Your task to perform on an android device: Empty the shopping cart on target.com. Search for "razer blade" on target.com, select the first entry, add it to the cart, then select checkout. Image 0: 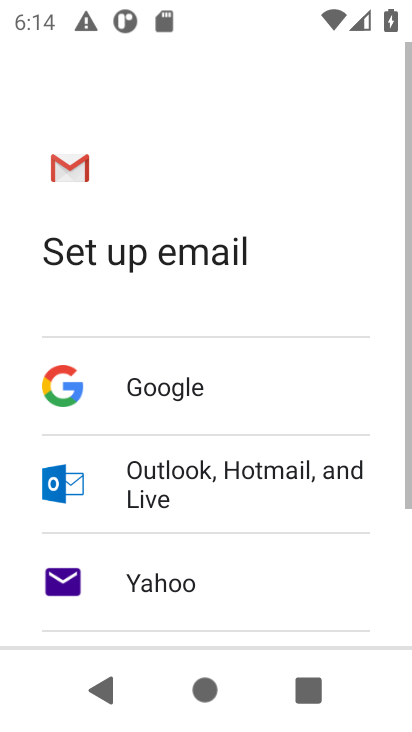
Step 0: press home button
Your task to perform on an android device: Empty the shopping cart on target.com. Search for "razer blade" on target.com, select the first entry, add it to the cart, then select checkout. Image 1: 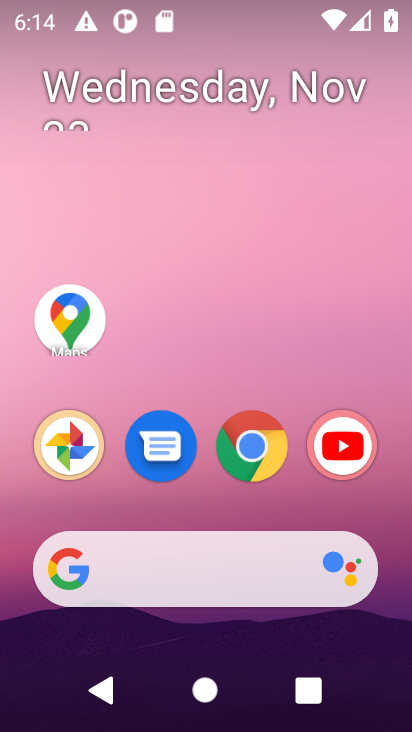
Step 1: click (197, 571)
Your task to perform on an android device: Empty the shopping cart on target.com. Search for "razer blade" on target.com, select the first entry, add it to the cart, then select checkout. Image 2: 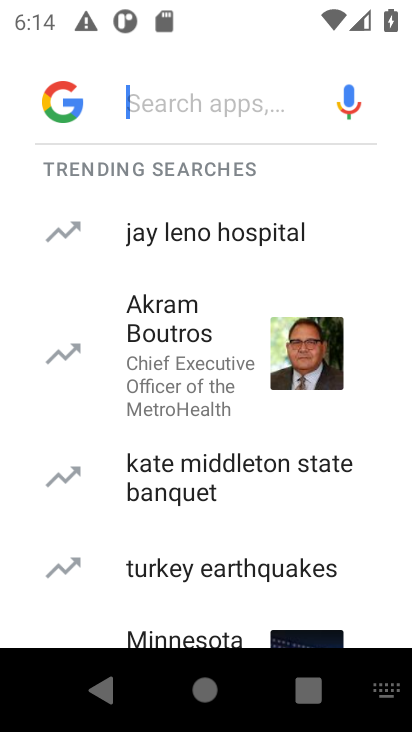
Step 2: type "target.com"
Your task to perform on an android device: Empty the shopping cart on target.com. Search for "razer blade" on target.com, select the first entry, add it to the cart, then select checkout. Image 3: 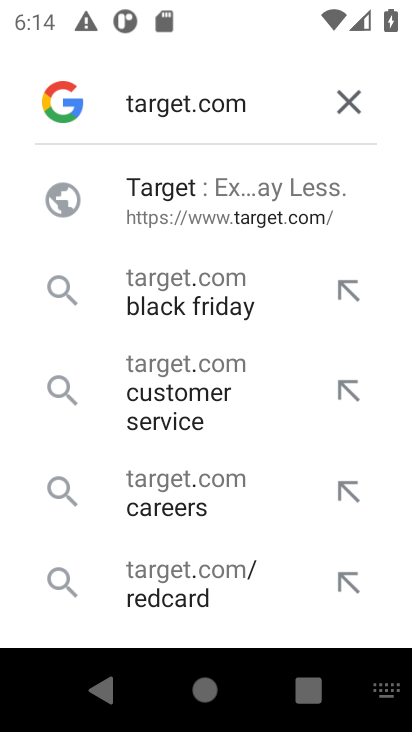
Step 3: click (283, 221)
Your task to perform on an android device: Empty the shopping cart on target.com. Search for "razer blade" on target.com, select the first entry, add it to the cart, then select checkout. Image 4: 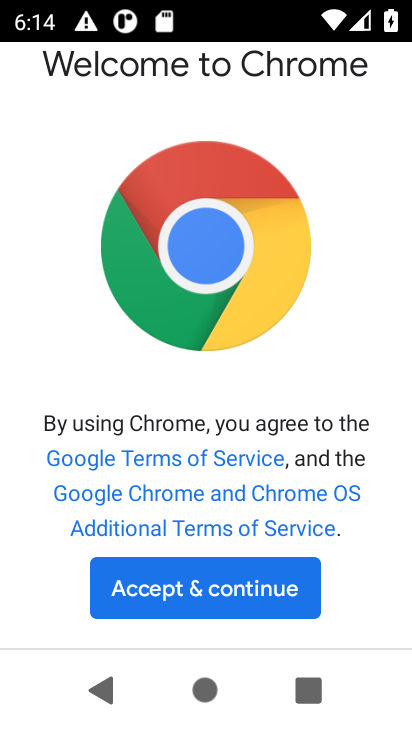
Step 4: click (274, 598)
Your task to perform on an android device: Empty the shopping cart on target.com. Search for "razer blade" on target.com, select the first entry, add it to the cart, then select checkout. Image 5: 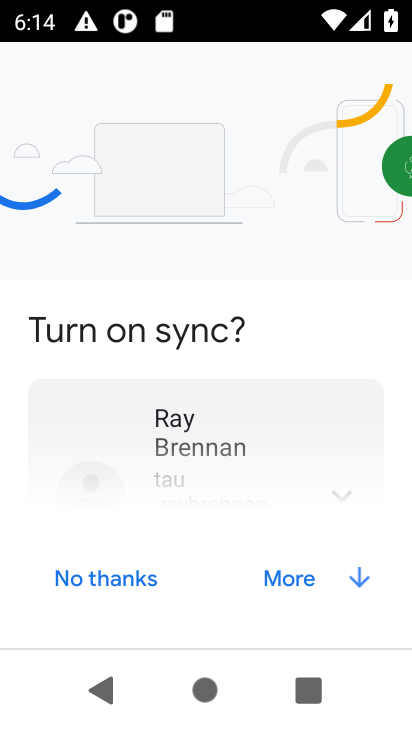
Step 5: click (175, 589)
Your task to perform on an android device: Empty the shopping cart on target.com. Search for "razer blade" on target.com, select the first entry, add it to the cart, then select checkout. Image 6: 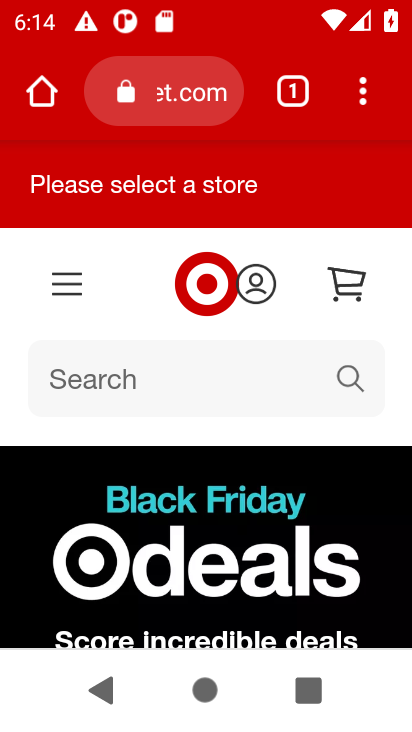
Step 6: click (242, 382)
Your task to perform on an android device: Empty the shopping cart on target.com. Search for "razer blade" on target.com, select the first entry, add it to the cart, then select checkout. Image 7: 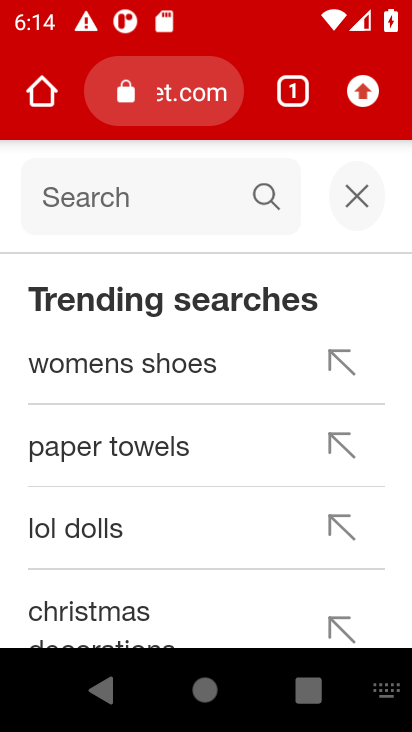
Step 7: type "razer blade"
Your task to perform on an android device: Empty the shopping cart on target.com. Search for "razer blade" on target.com, select the first entry, add it to the cart, then select checkout. Image 8: 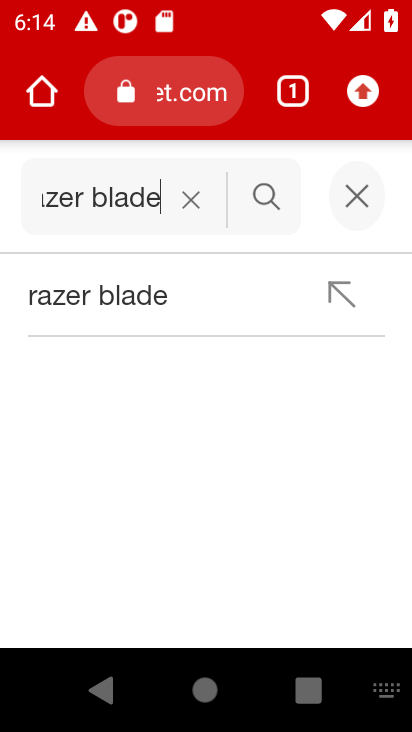
Step 8: click (107, 284)
Your task to perform on an android device: Empty the shopping cart on target.com. Search for "razer blade" on target.com, select the first entry, add it to the cart, then select checkout. Image 9: 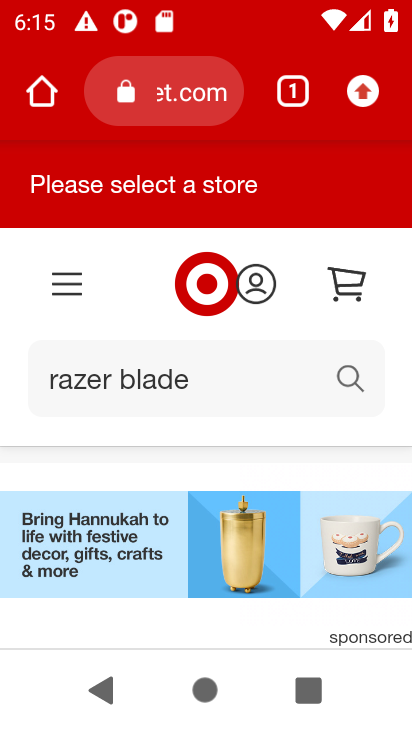
Step 9: drag from (314, 513) to (338, 148)
Your task to perform on an android device: Empty the shopping cart on target.com. Search for "razer blade" on target.com, select the first entry, add it to the cart, then select checkout. Image 10: 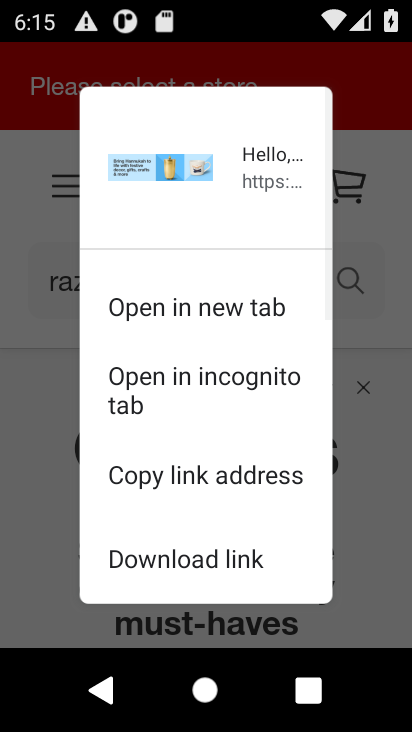
Step 10: click (395, 270)
Your task to perform on an android device: Empty the shopping cart on target.com. Search for "razer blade" on target.com, select the first entry, add it to the cart, then select checkout. Image 11: 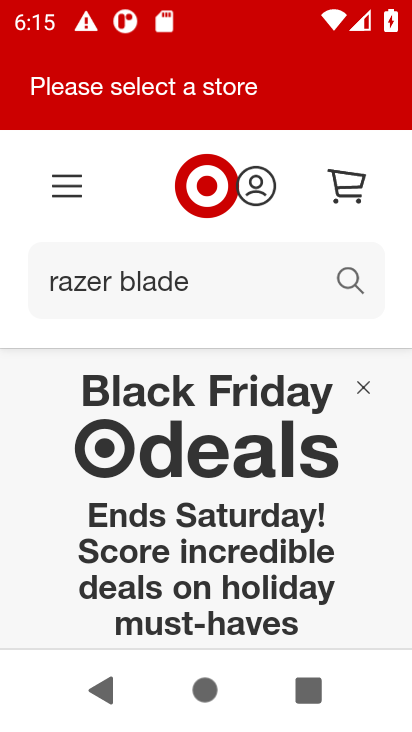
Step 11: click (367, 394)
Your task to perform on an android device: Empty the shopping cart on target.com. Search for "razer blade" on target.com, select the first entry, add it to the cart, then select checkout. Image 12: 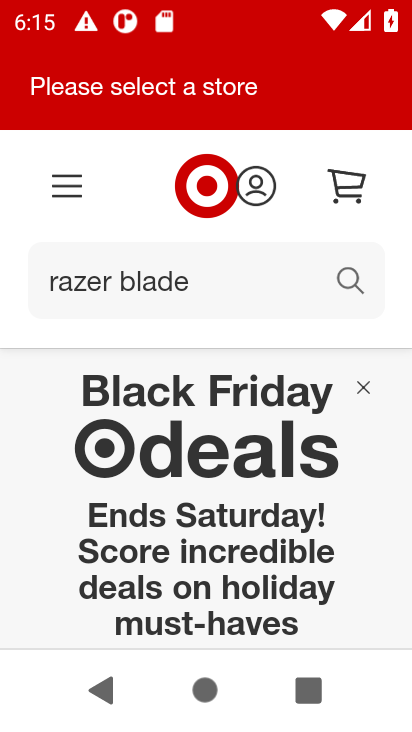
Step 12: drag from (227, 493) to (229, 0)
Your task to perform on an android device: Empty the shopping cart on target.com. Search for "razer blade" on target.com, select the first entry, add it to the cart, then select checkout. Image 13: 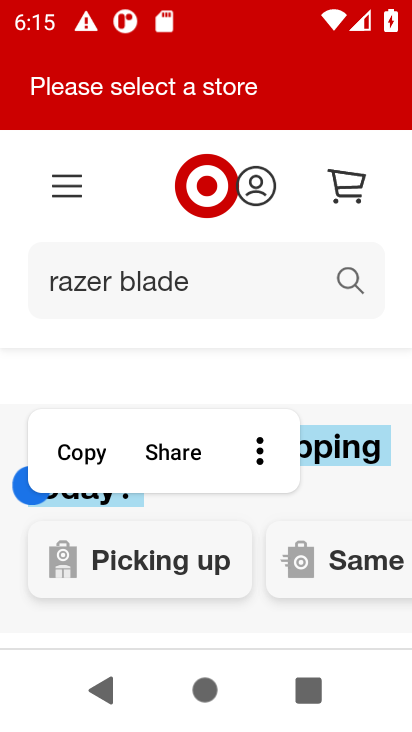
Step 13: click (205, 337)
Your task to perform on an android device: Empty the shopping cart on target.com. Search for "razer blade" on target.com, select the first entry, add it to the cart, then select checkout. Image 14: 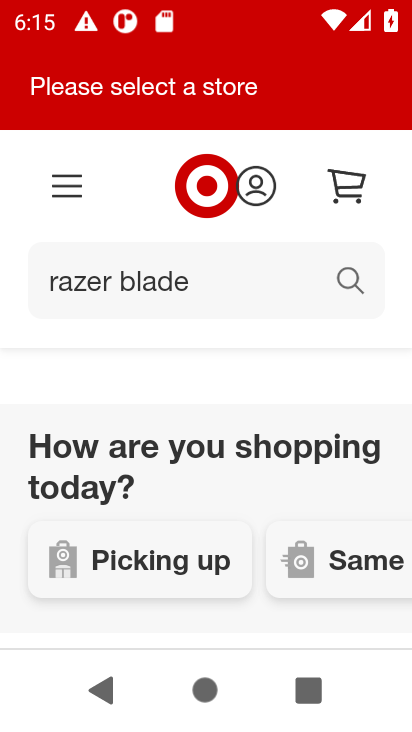
Step 14: drag from (183, 374) to (217, 18)
Your task to perform on an android device: Empty the shopping cart on target.com. Search for "razer blade" on target.com, select the first entry, add it to the cart, then select checkout. Image 15: 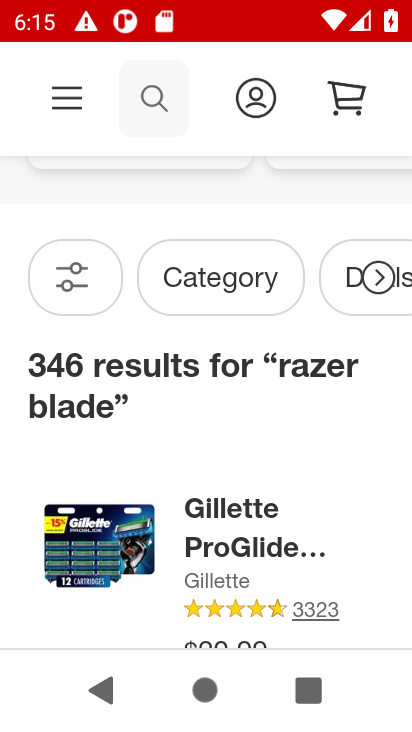
Step 15: click (194, 552)
Your task to perform on an android device: Empty the shopping cart on target.com. Search for "razer blade" on target.com, select the first entry, add it to the cart, then select checkout. Image 16: 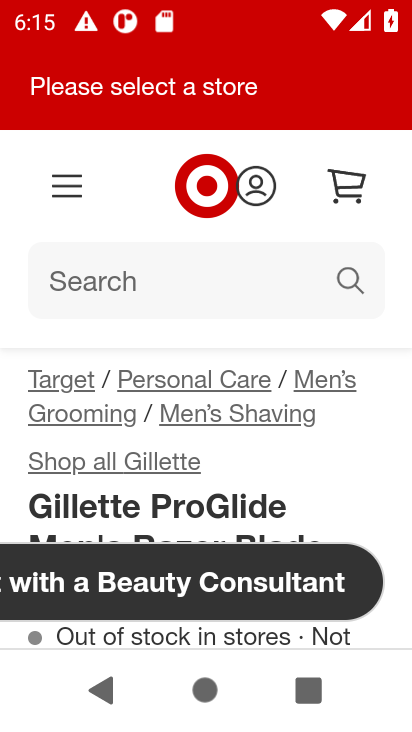
Step 16: task complete